Your task to perform on an android device: Show me popular videos on Youtube Image 0: 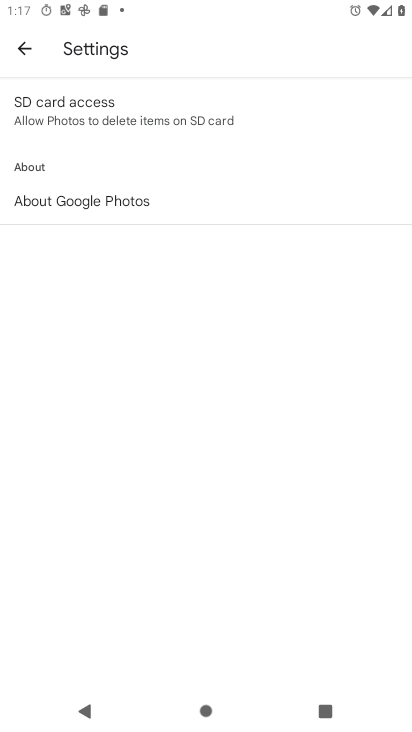
Step 0: press home button
Your task to perform on an android device: Show me popular videos on Youtube Image 1: 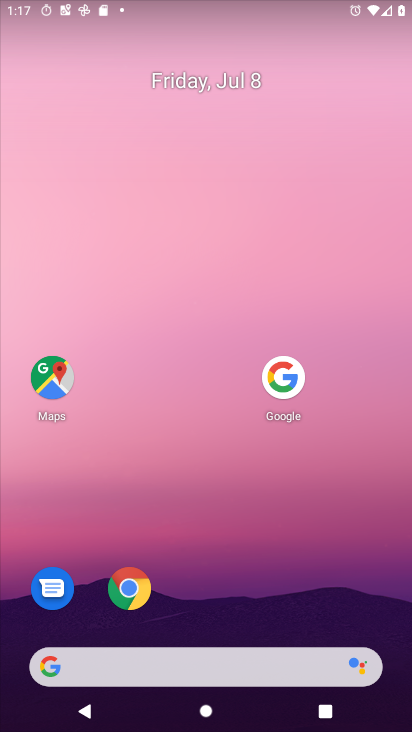
Step 1: drag from (174, 658) to (321, 92)
Your task to perform on an android device: Show me popular videos on Youtube Image 2: 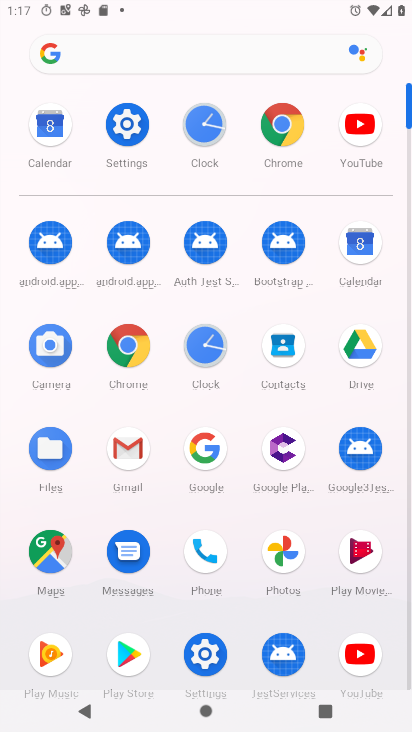
Step 2: click (362, 659)
Your task to perform on an android device: Show me popular videos on Youtube Image 3: 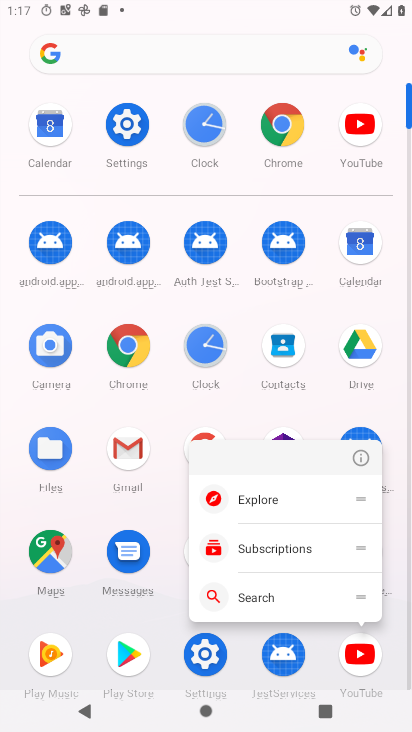
Step 3: click (353, 662)
Your task to perform on an android device: Show me popular videos on Youtube Image 4: 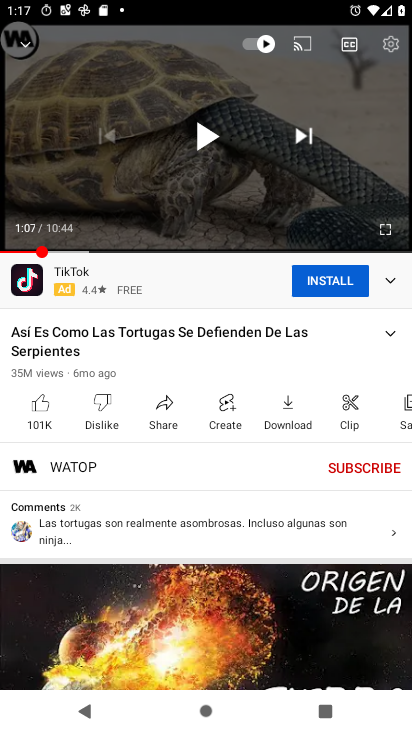
Step 4: press back button
Your task to perform on an android device: Show me popular videos on Youtube Image 5: 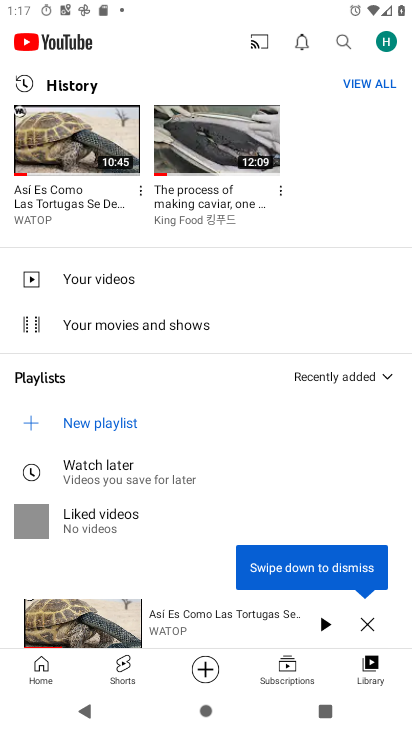
Step 5: click (34, 671)
Your task to perform on an android device: Show me popular videos on Youtube Image 6: 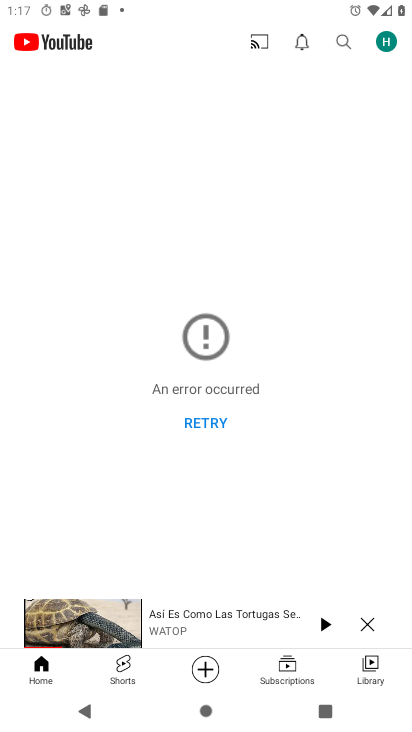
Step 6: click (376, 623)
Your task to perform on an android device: Show me popular videos on Youtube Image 7: 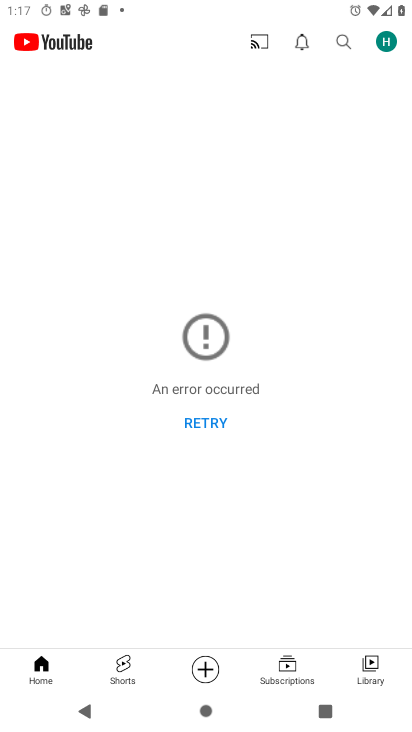
Step 7: click (213, 419)
Your task to perform on an android device: Show me popular videos on Youtube Image 8: 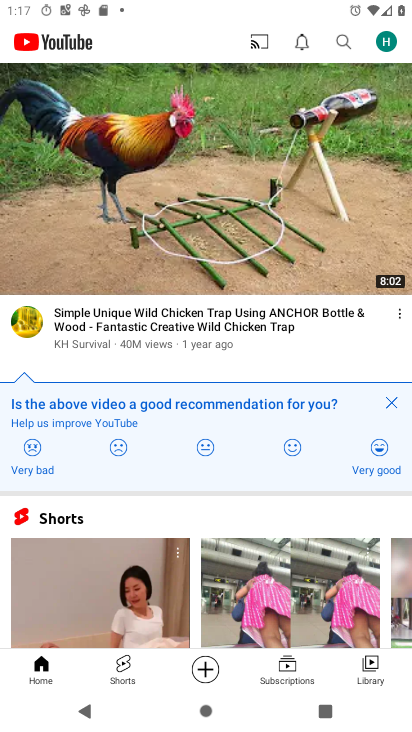
Step 8: task complete